Your task to perform on an android device: Go to Google maps Image 0: 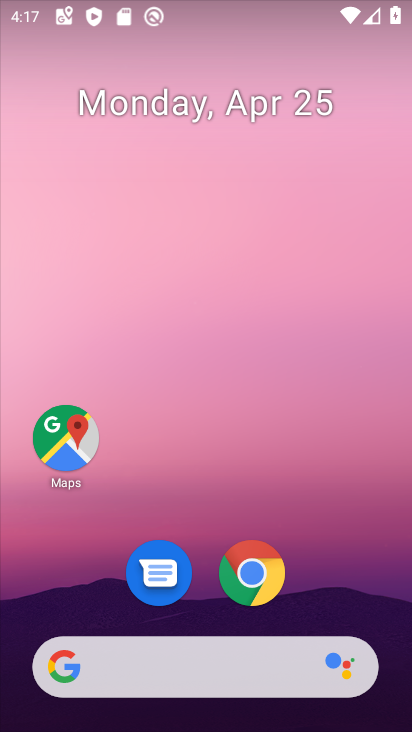
Step 0: drag from (301, 177) to (282, 53)
Your task to perform on an android device: Go to Google maps Image 1: 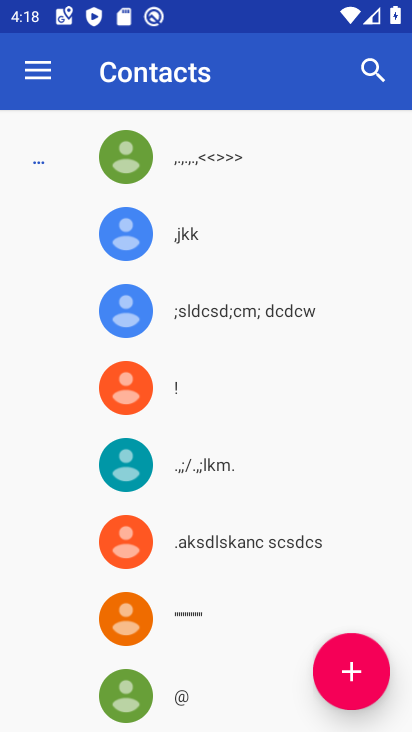
Step 1: press home button
Your task to perform on an android device: Go to Google maps Image 2: 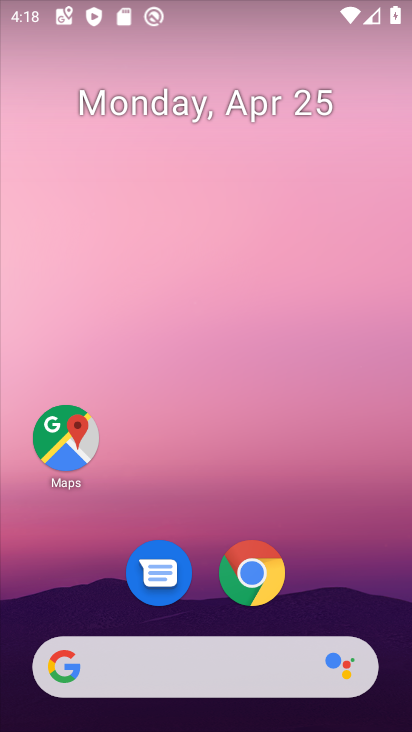
Step 2: click (51, 429)
Your task to perform on an android device: Go to Google maps Image 3: 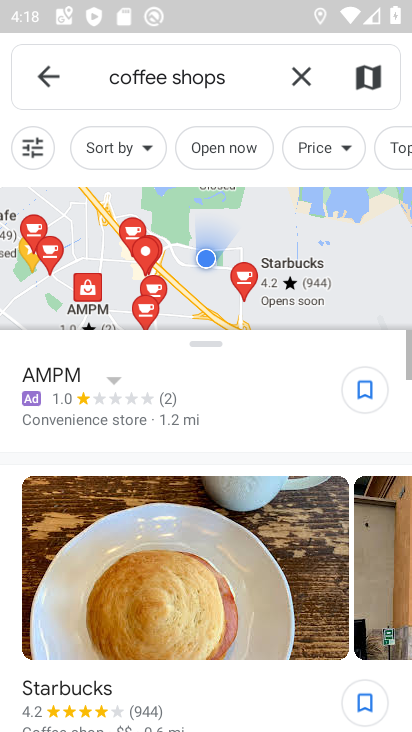
Step 3: task complete